Your task to perform on an android device: Open Google Image 0: 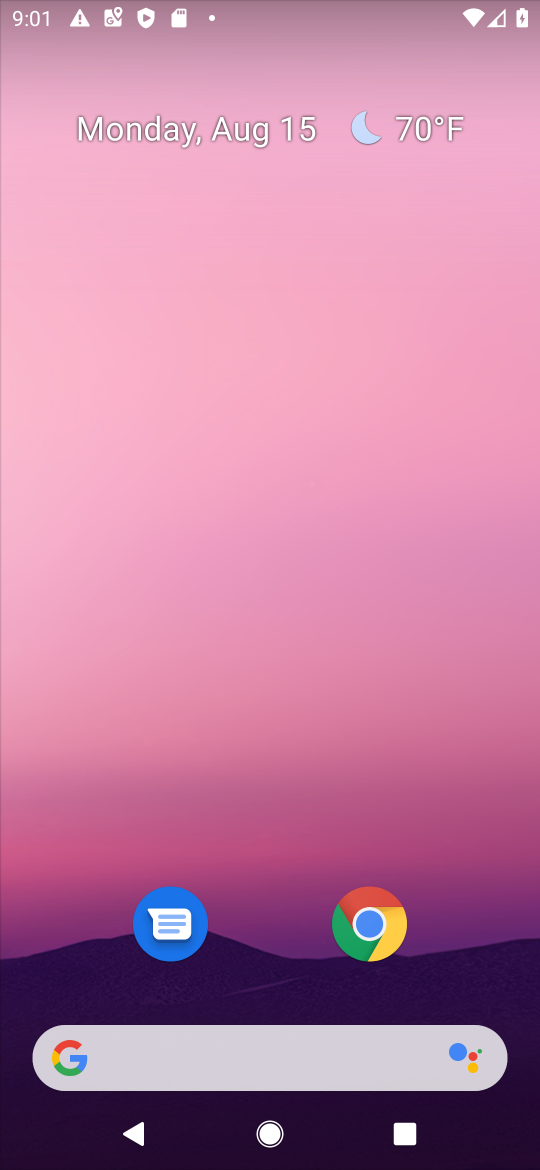
Step 0: click (367, 925)
Your task to perform on an android device: Open Google Image 1: 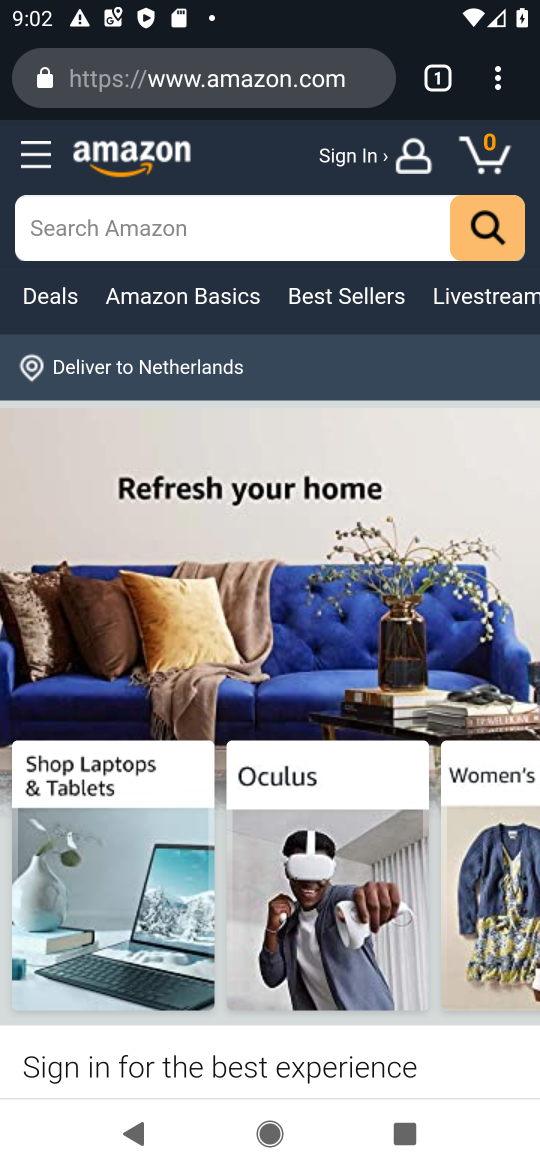
Step 1: task complete